Your task to perform on an android device: change the clock display to show seconds Image 0: 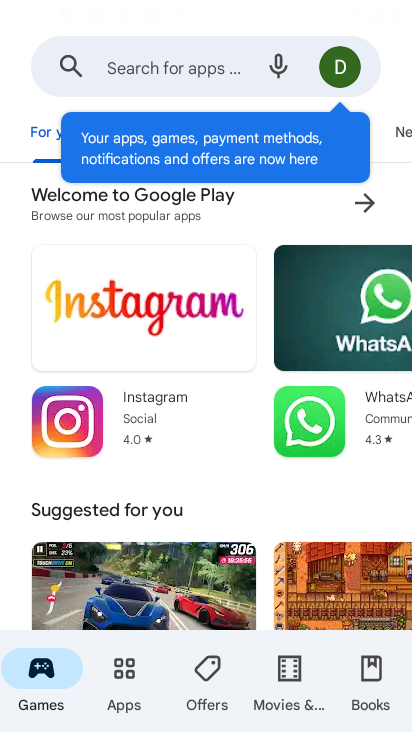
Step 0: press back button
Your task to perform on an android device: change the clock display to show seconds Image 1: 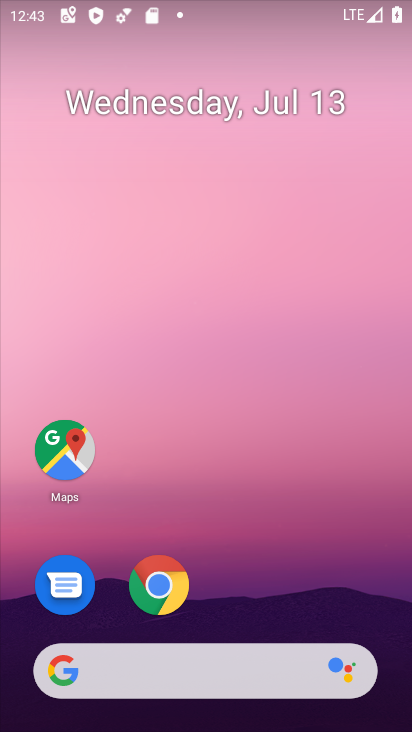
Step 1: drag from (204, 432) to (202, 169)
Your task to perform on an android device: change the clock display to show seconds Image 2: 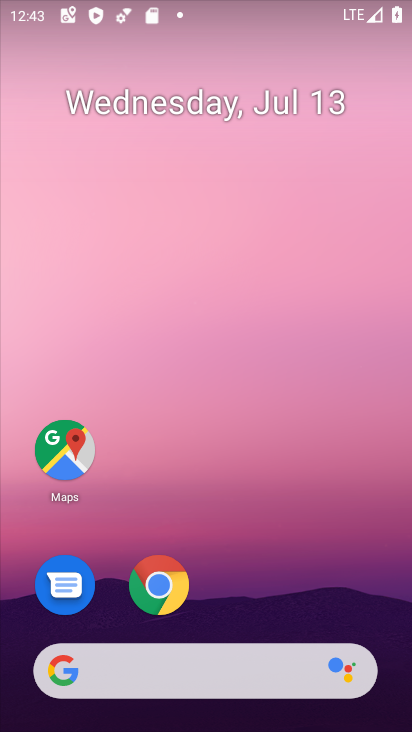
Step 2: drag from (202, 599) to (202, 109)
Your task to perform on an android device: change the clock display to show seconds Image 3: 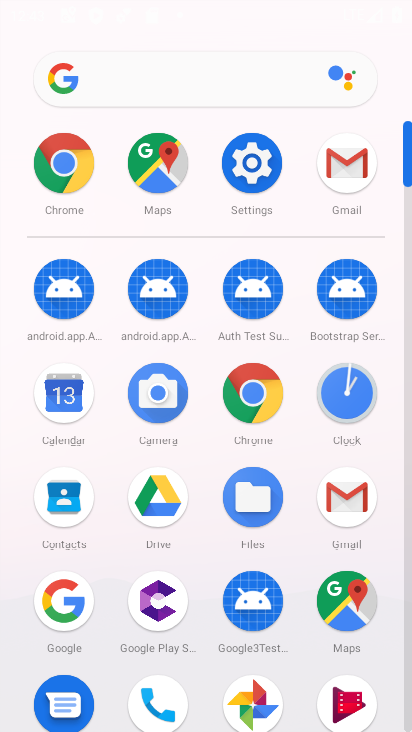
Step 3: click (343, 415)
Your task to perform on an android device: change the clock display to show seconds Image 4: 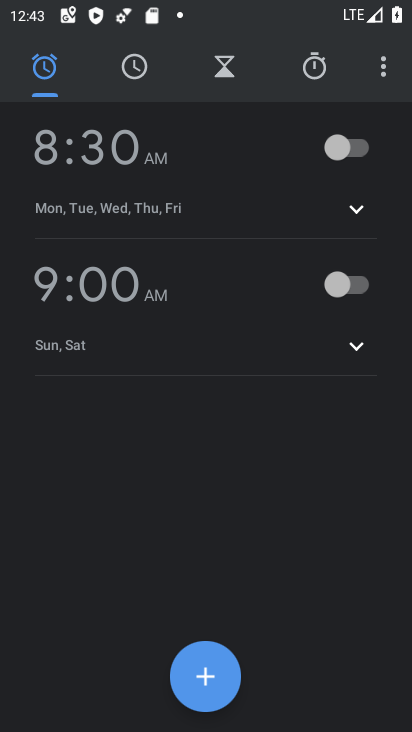
Step 4: click (382, 88)
Your task to perform on an android device: change the clock display to show seconds Image 5: 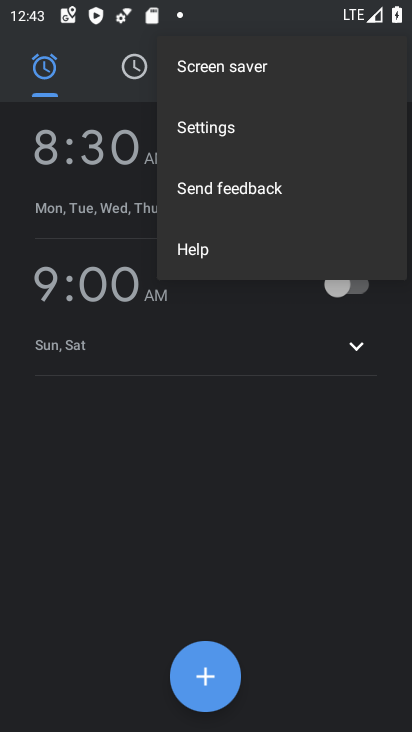
Step 5: click (227, 131)
Your task to perform on an android device: change the clock display to show seconds Image 6: 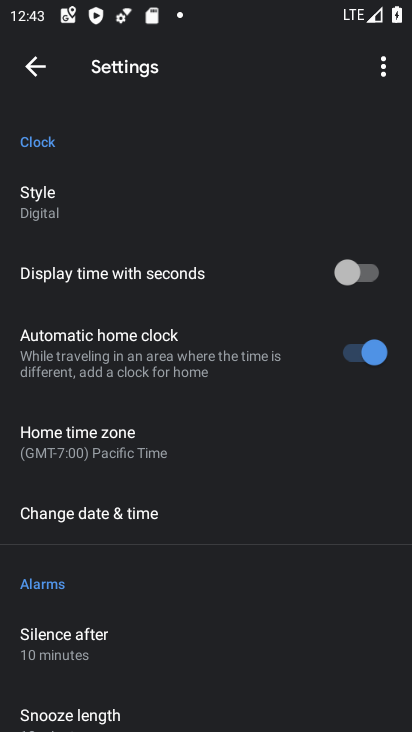
Step 6: click (374, 277)
Your task to perform on an android device: change the clock display to show seconds Image 7: 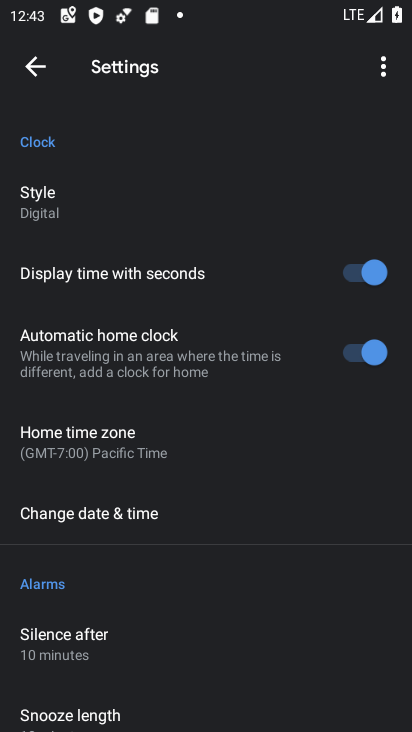
Step 7: task complete